Your task to perform on an android device: Go to location settings Image 0: 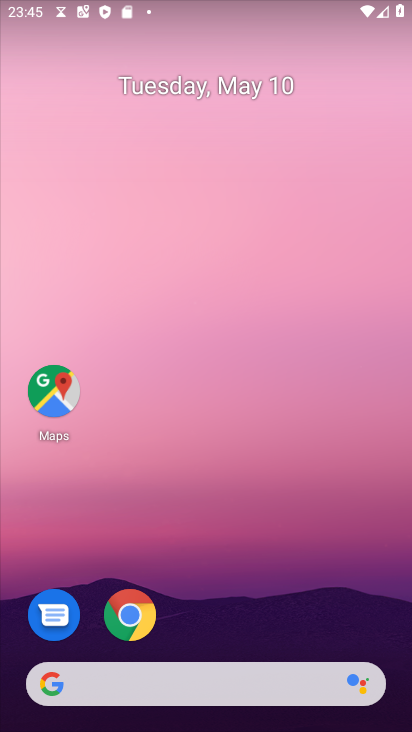
Step 0: drag from (268, 616) to (200, 52)
Your task to perform on an android device: Go to location settings Image 1: 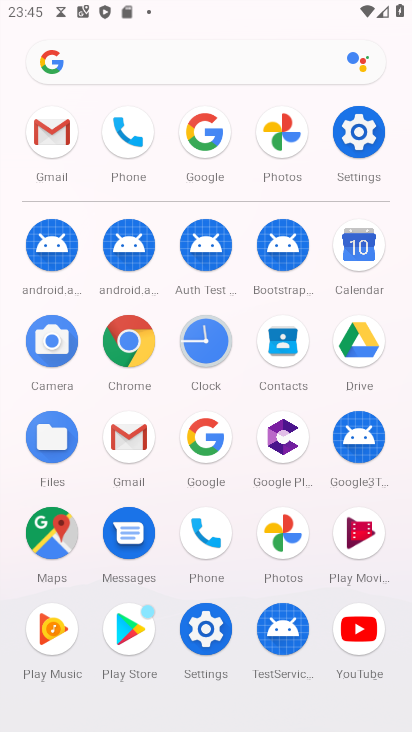
Step 1: click (357, 133)
Your task to perform on an android device: Go to location settings Image 2: 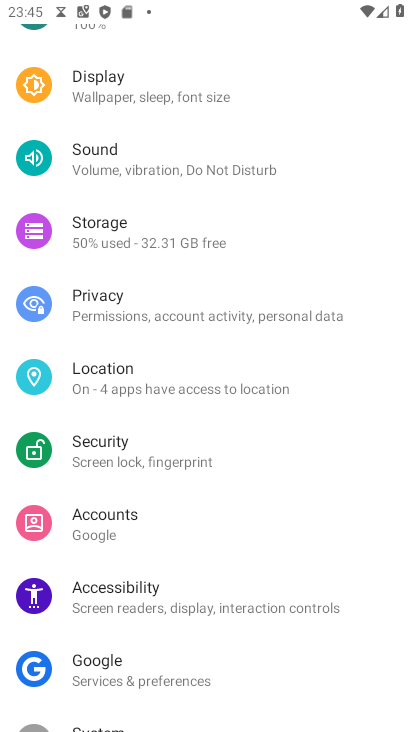
Step 2: click (154, 388)
Your task to perform on an android device: Go to location settings Image 3: 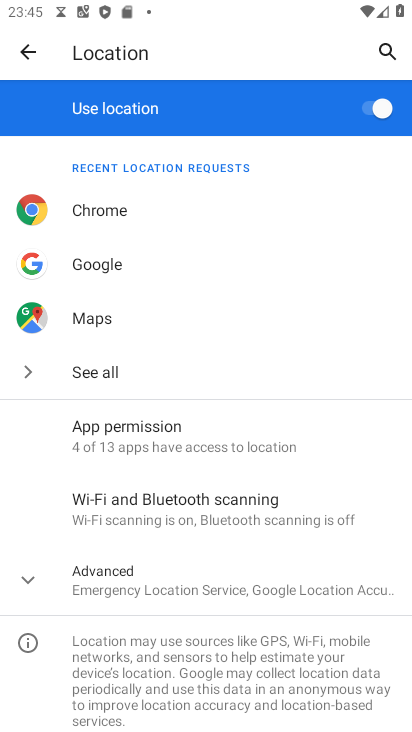
Step 3: task complete